Your task to perform on an android device: delete the emails in spam in the gmail app Image 0: 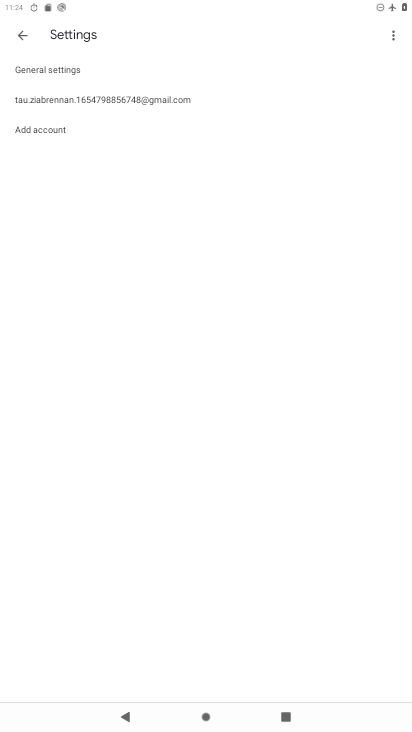
Step 0: press home button
Your task to perform on an android device: delete the emails in spam in the gmail app Image 1: 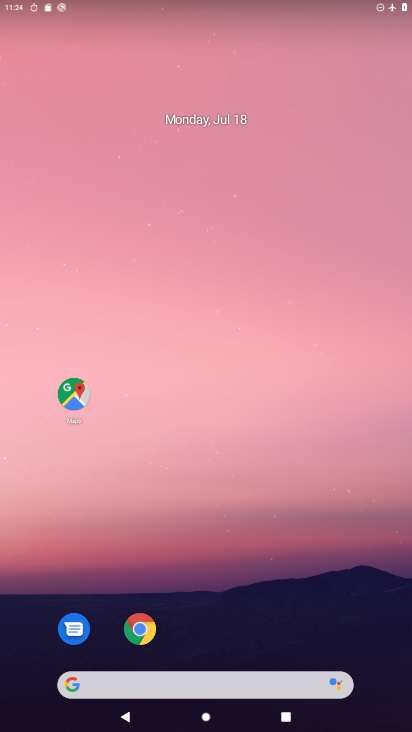
Step 1: drag from (303, 638) to (248, 99)
Your task to perform on an android device: delete the emails in spam in the gmail app Image 2: 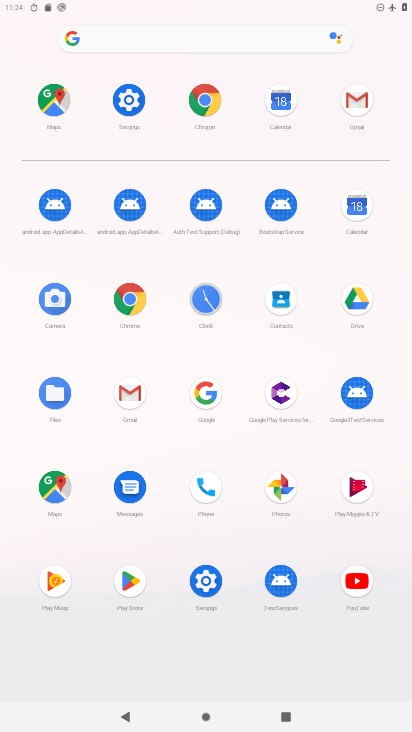
Step 2: click (353, 107)
Your task to perform on an android device: delete the emails in spam in the gmail app Image 3: 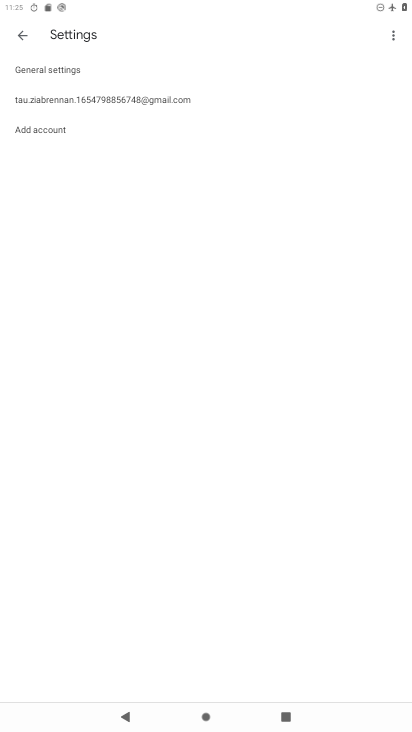
Step 3: click (25, 36)
Your task to perform on an android device: delete the emails in spam in the gmail app Image 4: 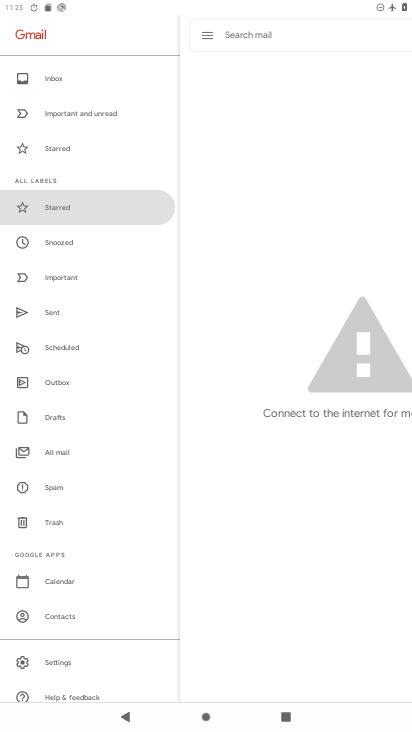
Step 4: click (50, 487)
Your task to perform on an android device: delete the emails in spam in the gmail app Image 5: 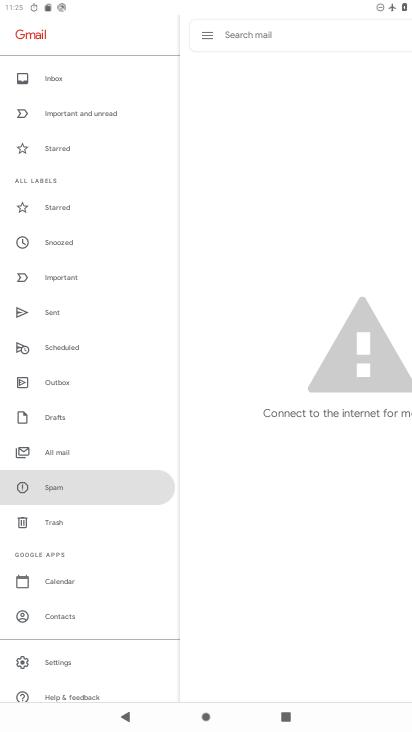
Step 5: task complete